Your task to perform on an android device: delete the emails in spam in the gmail app Image 0: 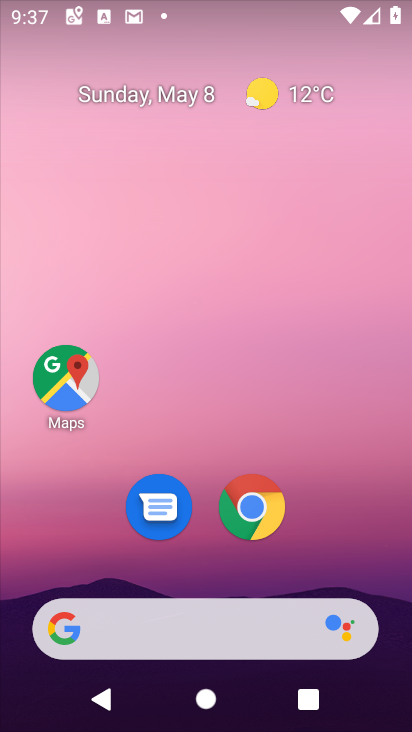
Step 0: drag from (262, 680) to (262, 52)
Your task to perform on an android device: delete the emails in spam in the gmail app Image 1: 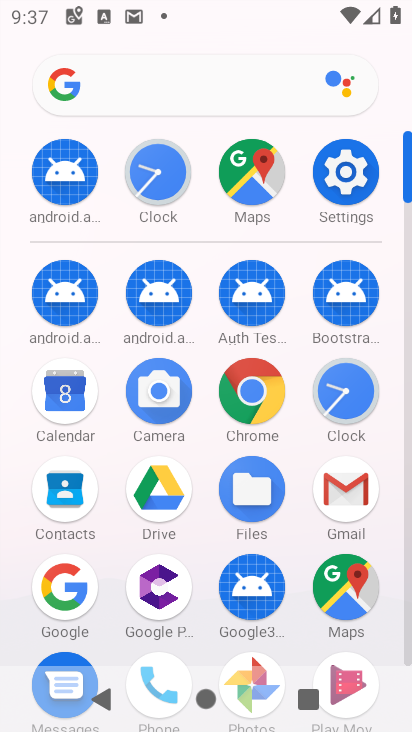
Step 1: click (348, 489)
Your task to perform on an android device: delete the emails in spam in the gmail app Image 2: 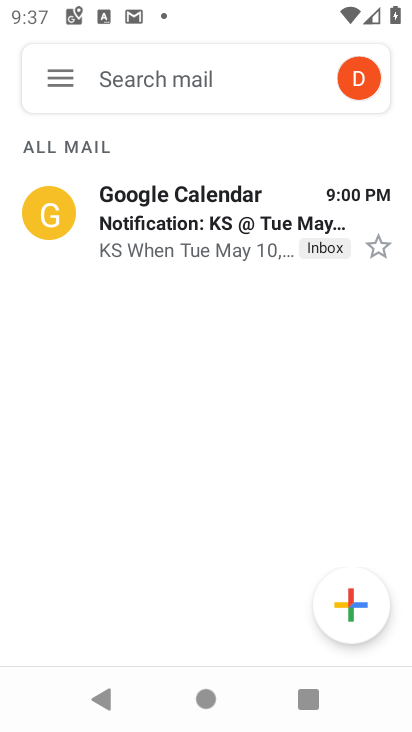
Step 2: click (240, 217)
Your task to perform on an android device: delete the emails in spam in the gmail app Image 3: 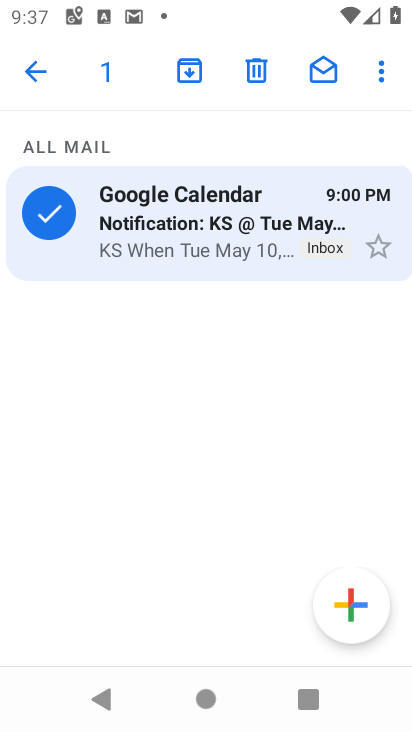
Step 3: click (30, 63)
Your task to perform on an android device: delete the emails in spam in the gmail app Image 4: 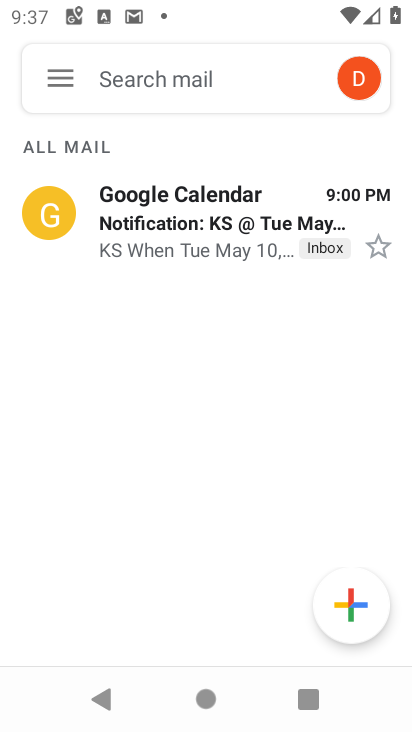
Step 4: click (52, 80)
Your task to perform on an android device: delete the emails in spam in the gmail app Image 5: 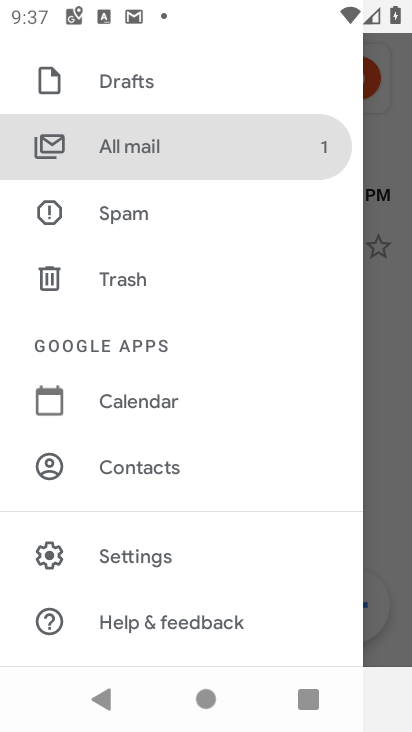
Step 5: click (139, 211)
Your task to perform on an android device: delete the emails in spam in the gmail app Image 6: 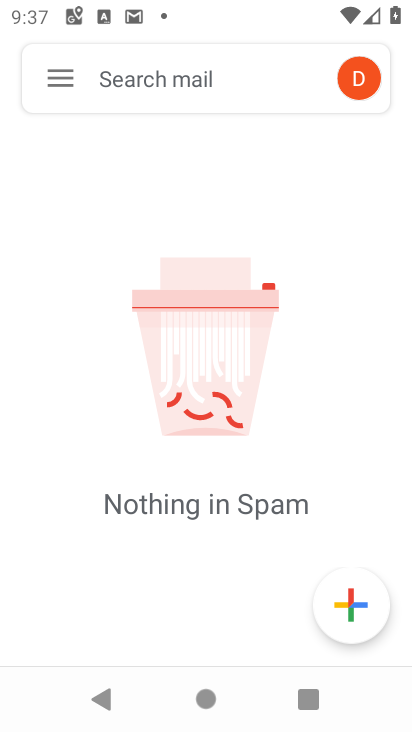
Step 6: task complete